Your task to perform on an android device: Open Yahoo.com Image 0: 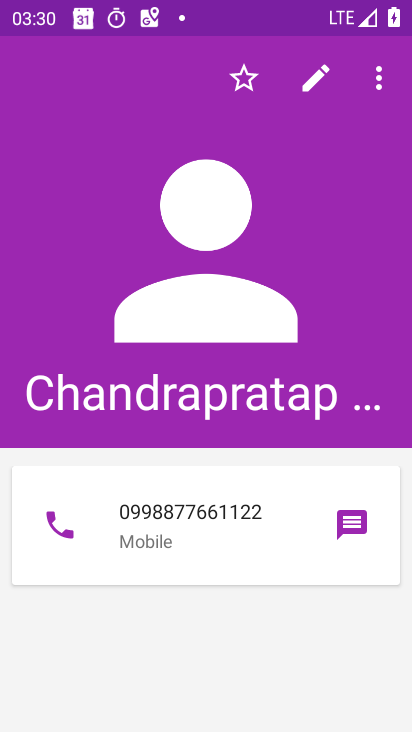
Step 0: press back button
Your task to perform on an android device: Open Yahoo.com Image 1: 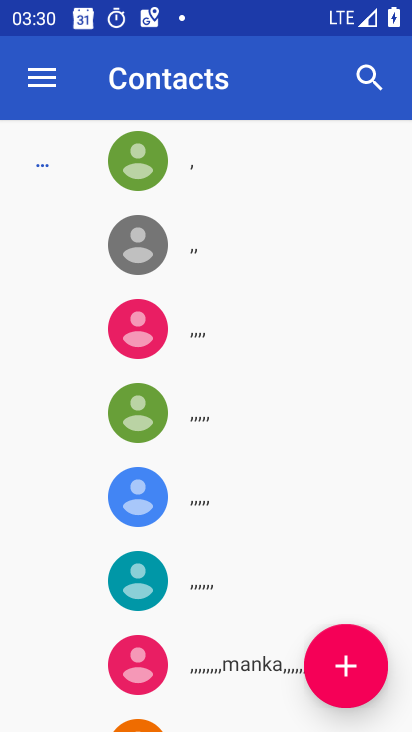
Step 1: press back button
Your task to perform on an android device: Open Yahoo.com Image 2: 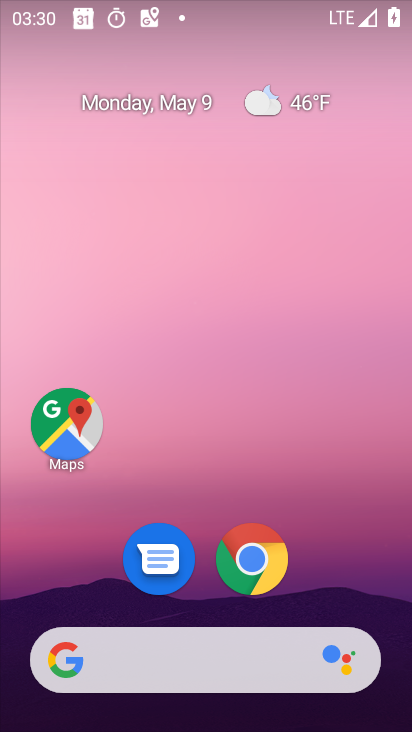
Step 2: click (249, 557)
Your task to perform on an android device: Open Yahoo.com Image 3: 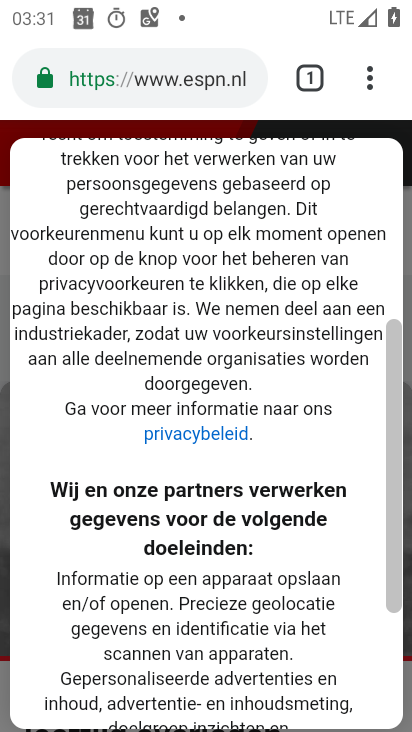
Step 3: click (245, 85)
Your task to perform on an android device: Open Yahoo.com Image 4: 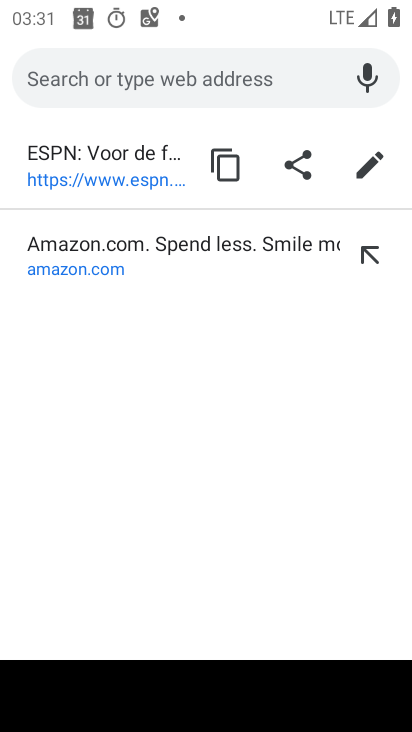
Step 4: type "Yahoo.com"
Your task to perform on an android device: Open Yahoo.com Image 5: 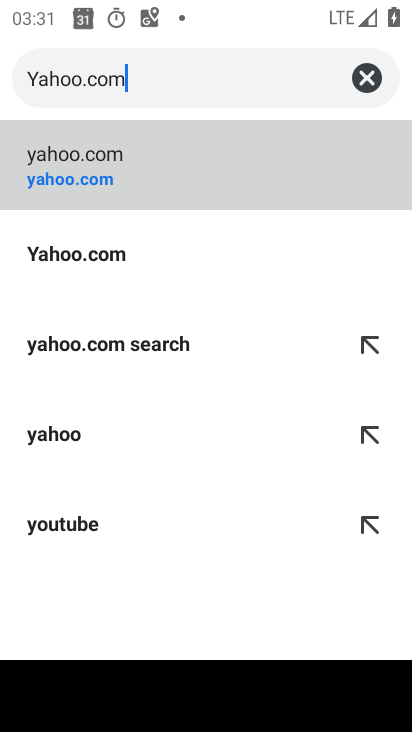
Step 5: type ""
Your task to perform on an android device: Open Yahoo.com Image 6: 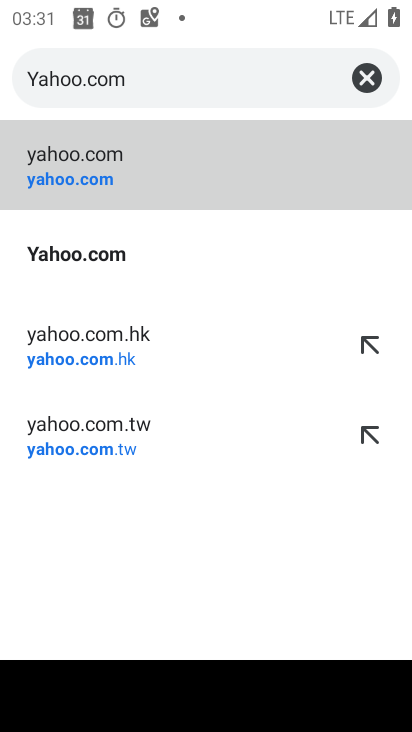
Step 6: click (77, 253)
Your task to perform on an android device: Open Yahoo.com Image 7: 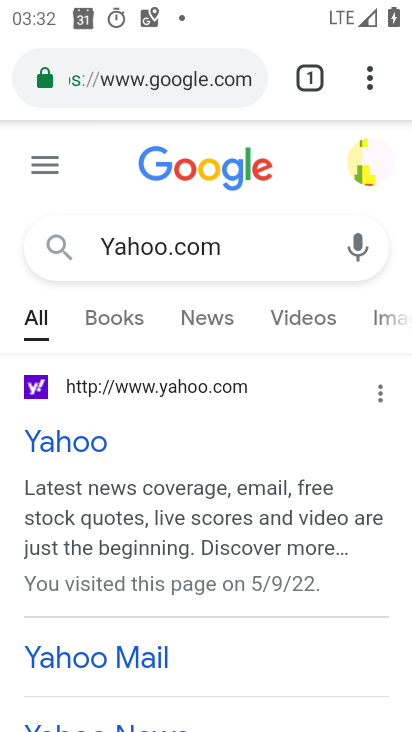
Step 7: click (56, 450)
Your task to perform on an android device: Open Yahoo.com Image 8: 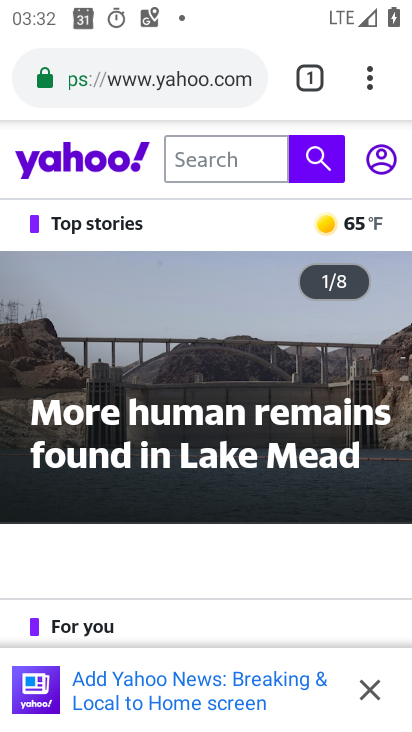
Step 8: task complete